Your task to perform on an android device: change your default location settings in chrome Image 0: 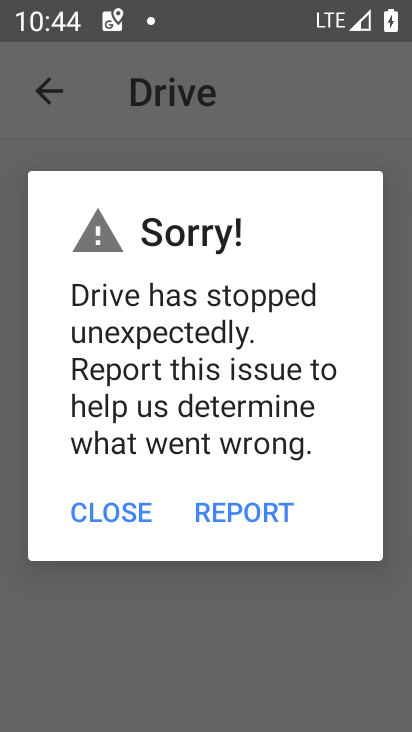
Step 0: press home button
Your task to perform on an android device: change your default location settings in chrome Image 1: 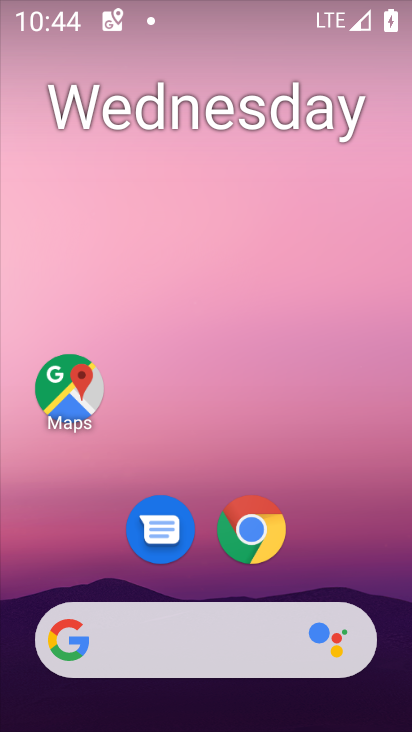
Step 1: click (253, 523)
Your task to perform on an android device: change your default location settings in chrome Image 2: 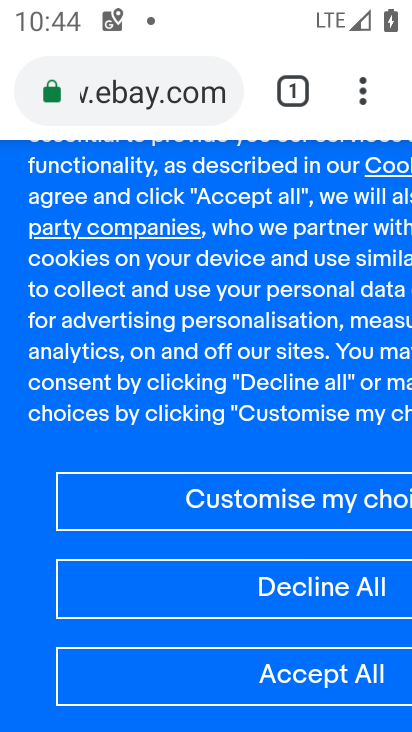
Step 2: click (363, 96)
Your task to perform on an android device: change your default location settings in chrome Image 3: 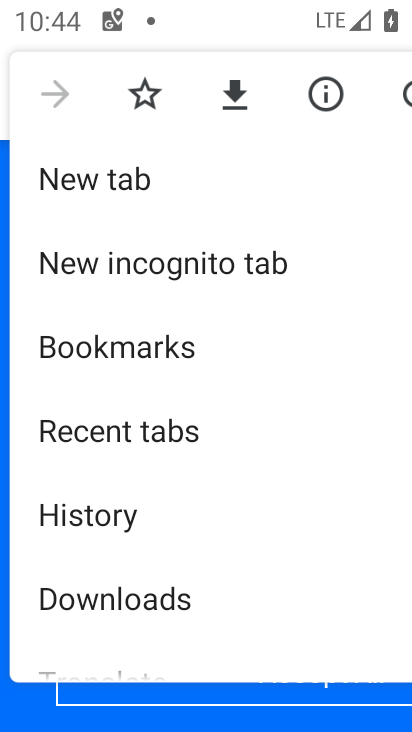
Step 3: drag from (196, 582) to (294, 205)
Your task to perform on an android device: change your default location settings in chrome Image 4: 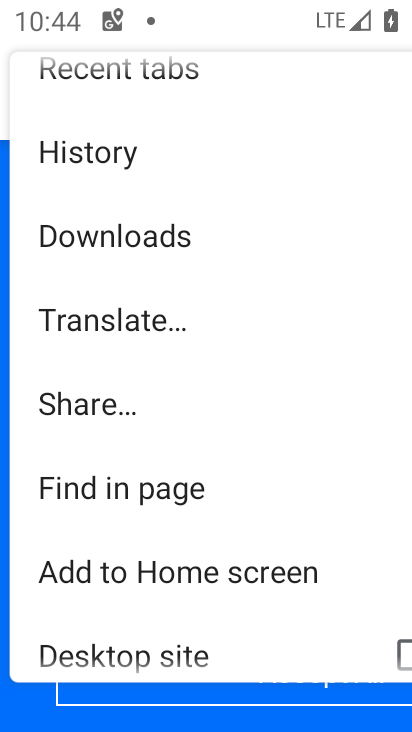
Step 4: drag from (337, 536) to (286, 139)
Your task to perform on an android device: change your default location settings in chrome Image 5: 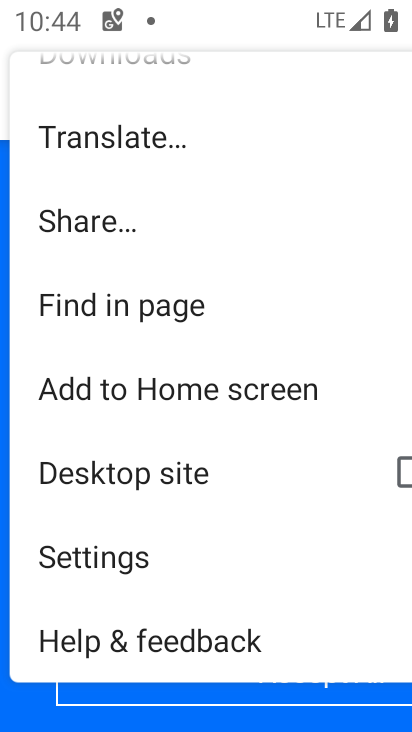
Step 5: click (107, 553)
Your task to perform on an android device: change your default location settings in chrome Image 6: 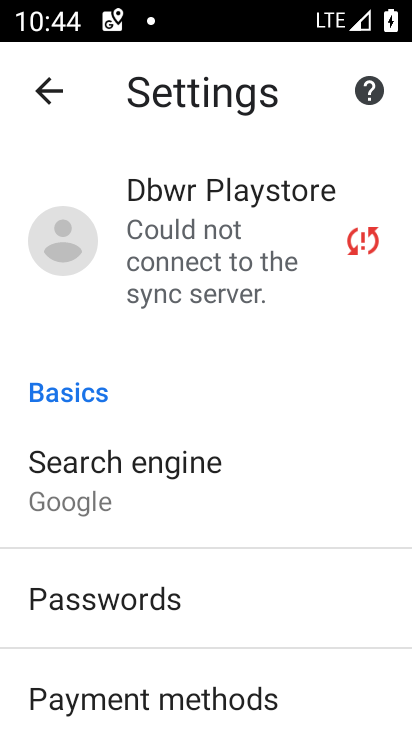
Step 6: drag from (282, 624) to (293, 301)
Your task to perform on an android device: change your default location settings in chrome Image 7: 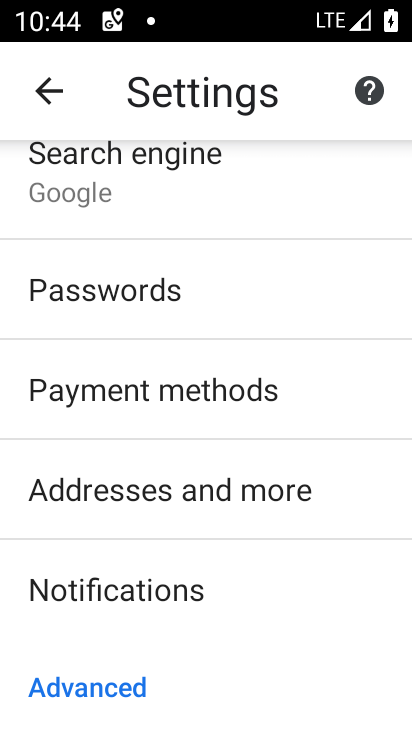
Step 7: drag from (274, 647) to (335, 209)
Your task to perform on an android device: change your default location settings in chrome Image 8: 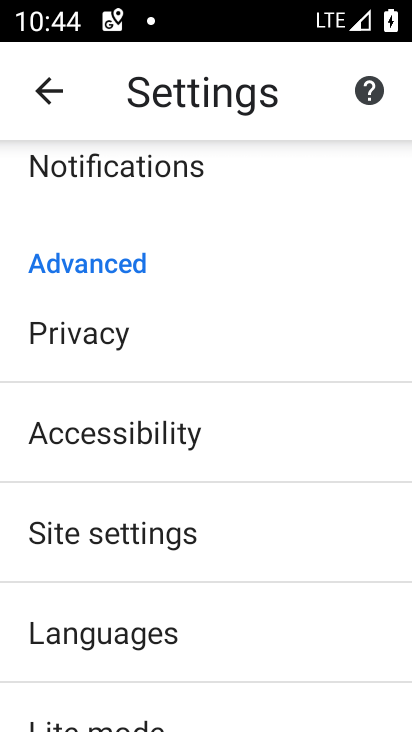
Step 8: click (69, 556)
Your task to perform on an android device: change your default location settings in chrome Image 9: 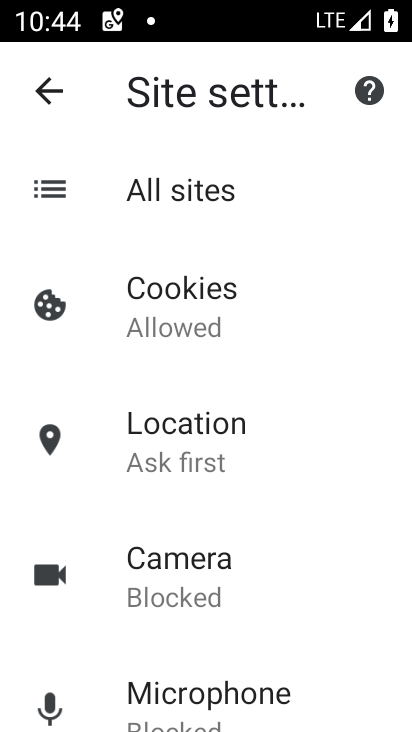
Step 9: click (151, 435)
Your task to perform on an android device: change your default location settings in chrome Image 10: 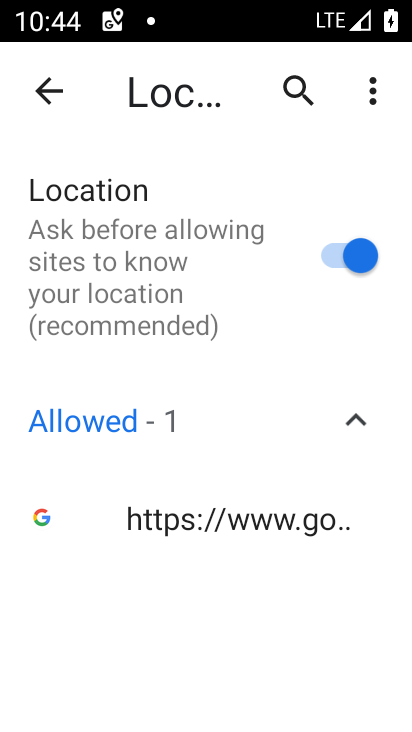
Step 10: click (326, 254)
Your task to perform on an android device: change your default location settings in chrome Image 11: 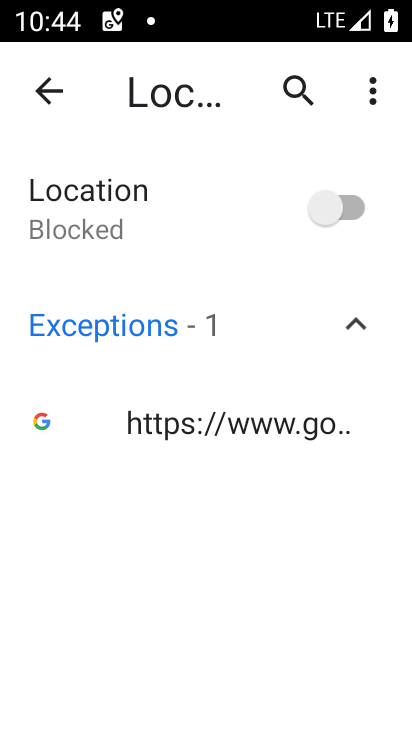
Step 11: task complete